Your task to perform on an android device: open app "Microsoft Outlook" (install if not already installed) Image 0: 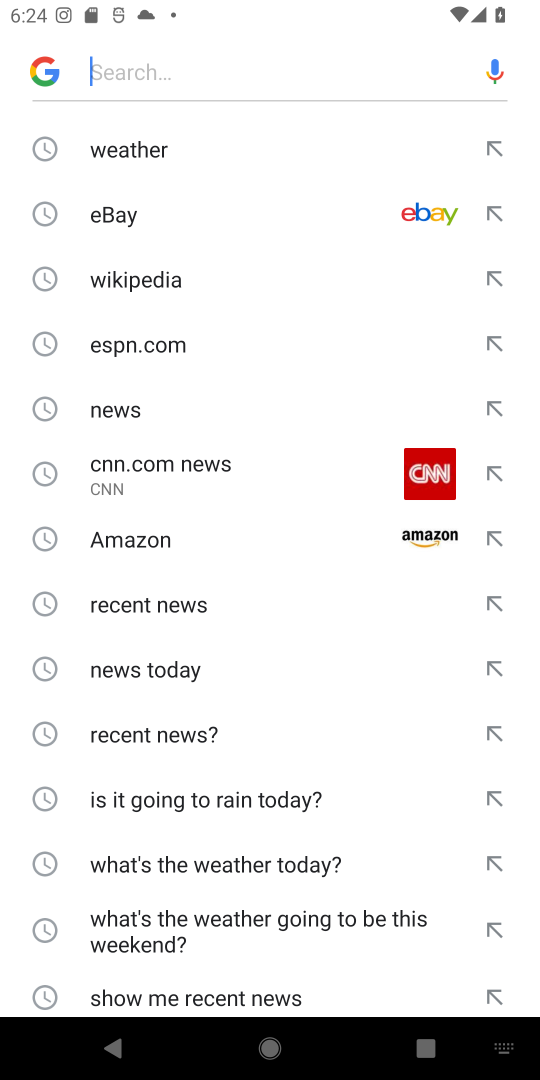
Step 0: press home button
Your task to perform on an android device: open app "Microsoft Outlook" (install if not already installed) Image 1: 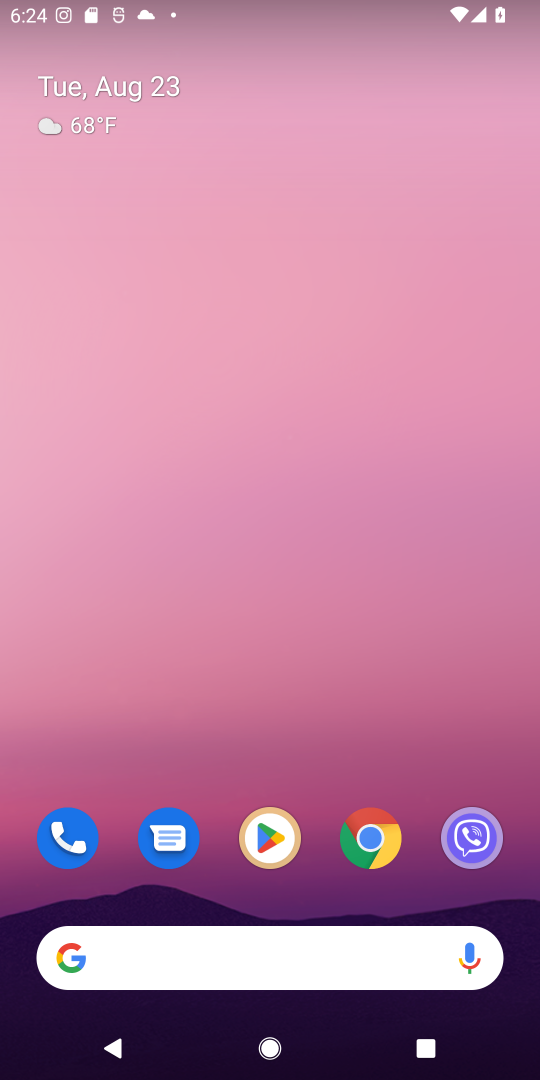
Step 1: click (269, 836)
Your task to perform on an android device: open app "Microsoft Outlook" (install if not already installed) Image 2: 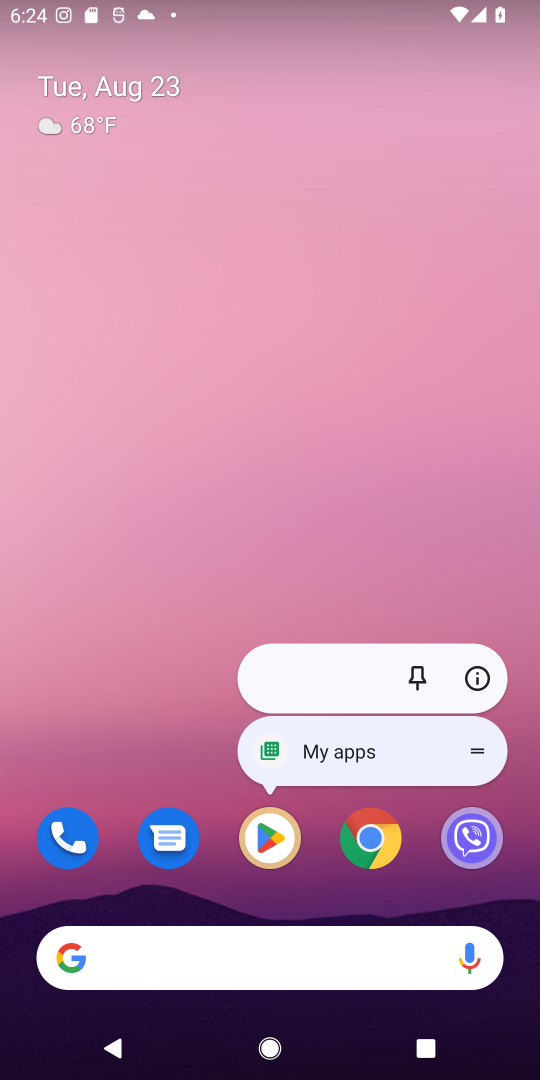
Step 2: click (266, 846)
Your task to perform on an android device: open app "Microsoft Outlook" (install if not already installed) Image 3: 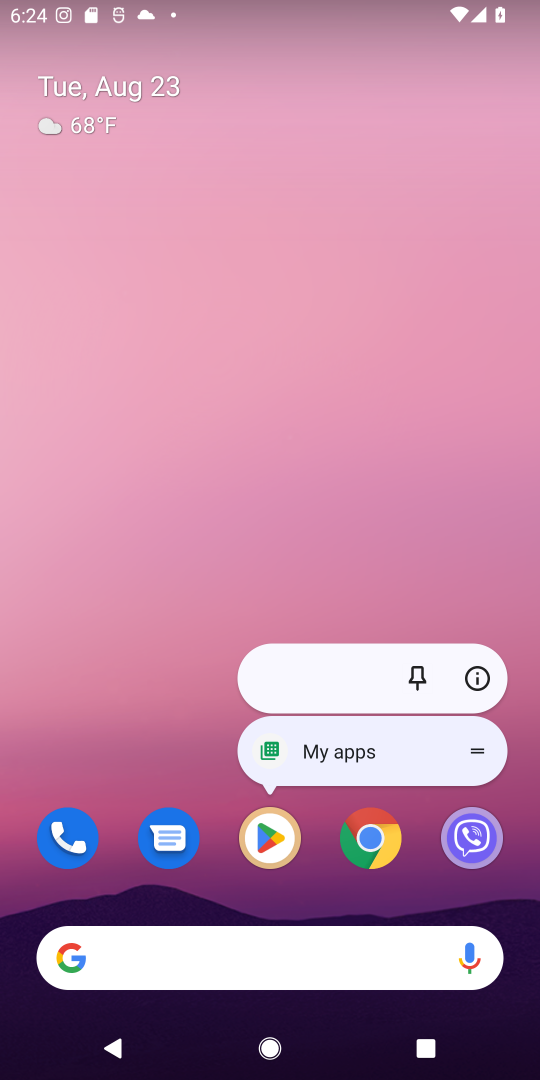
Step 3: click (268, 846)
Your task to perform on an android device: open app "Microsoft Outlook" (install if not already installed) Image 4: 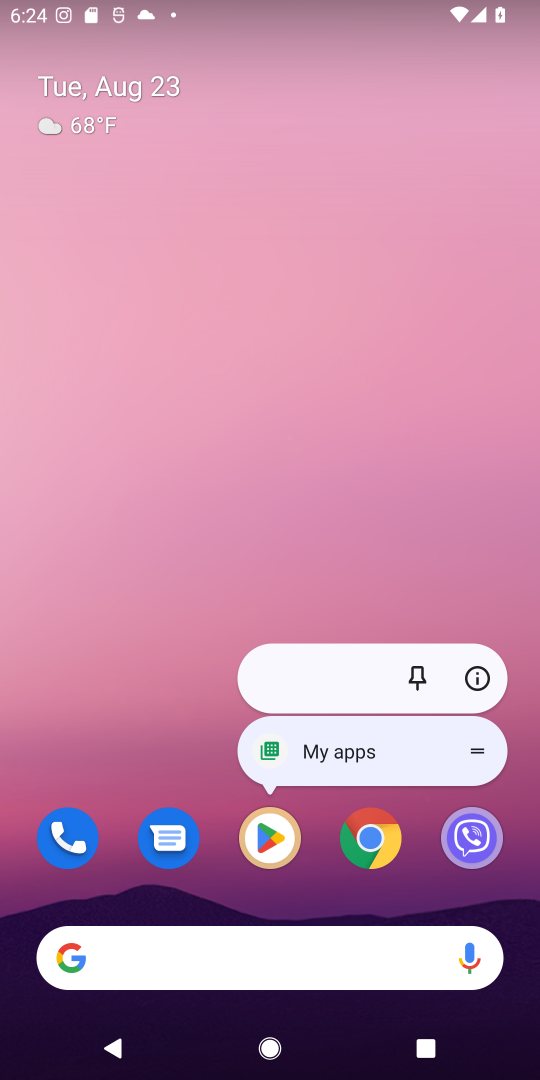
Step 4: click (269, 845)
Your task to perform on an android device: open app "Microsoft Outlook" (install if not already installed) Image 5: 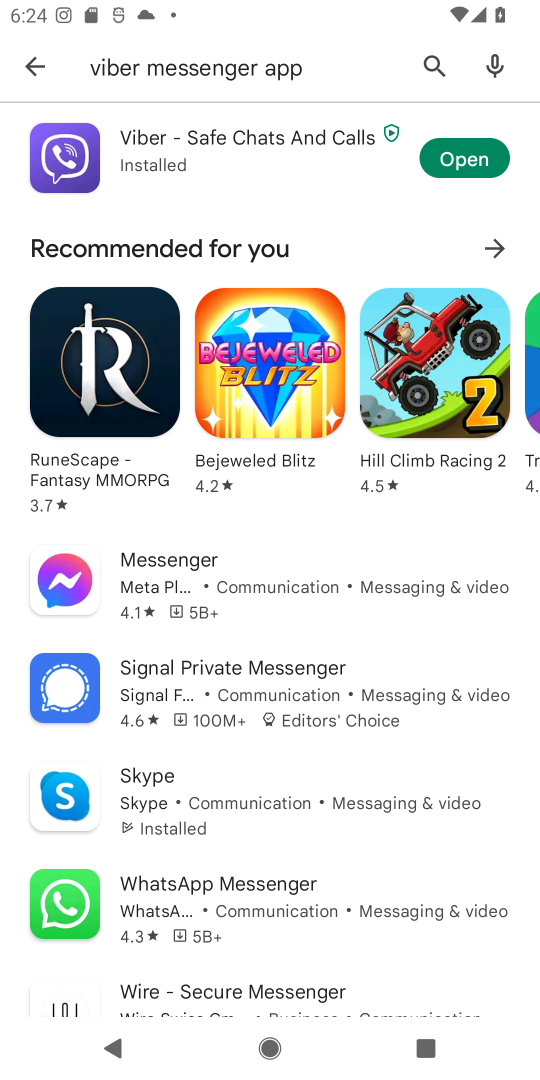
Step 5: click (437, 55)
Your task to perform on an android device: open app "Microsoft Outlook" (install if not already installed) Image 6: 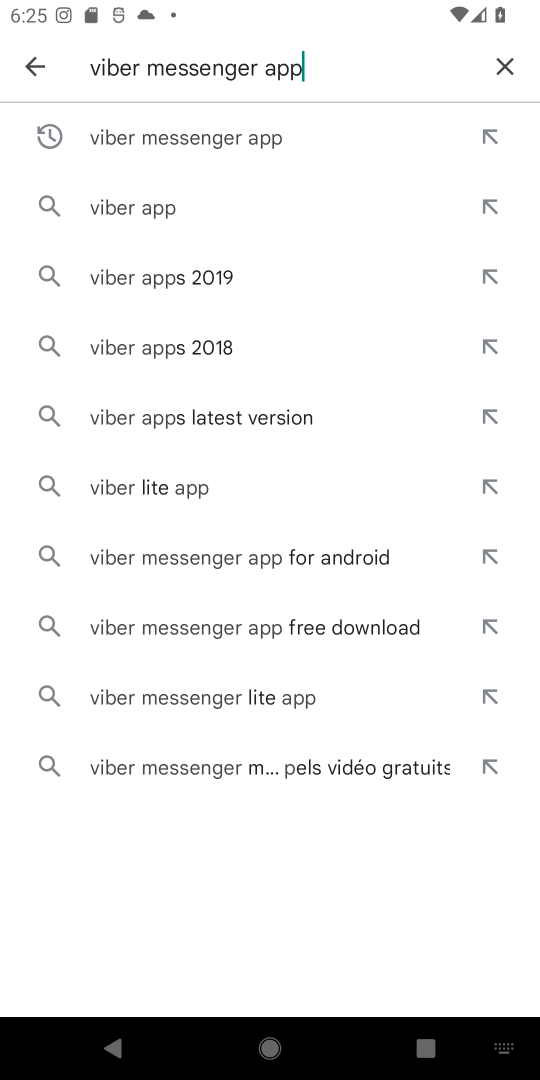
Step 6: click (505, 57)
Your task to perform on an android device: open app "Microsoft Outlook" (install if not already installed) Image 7: 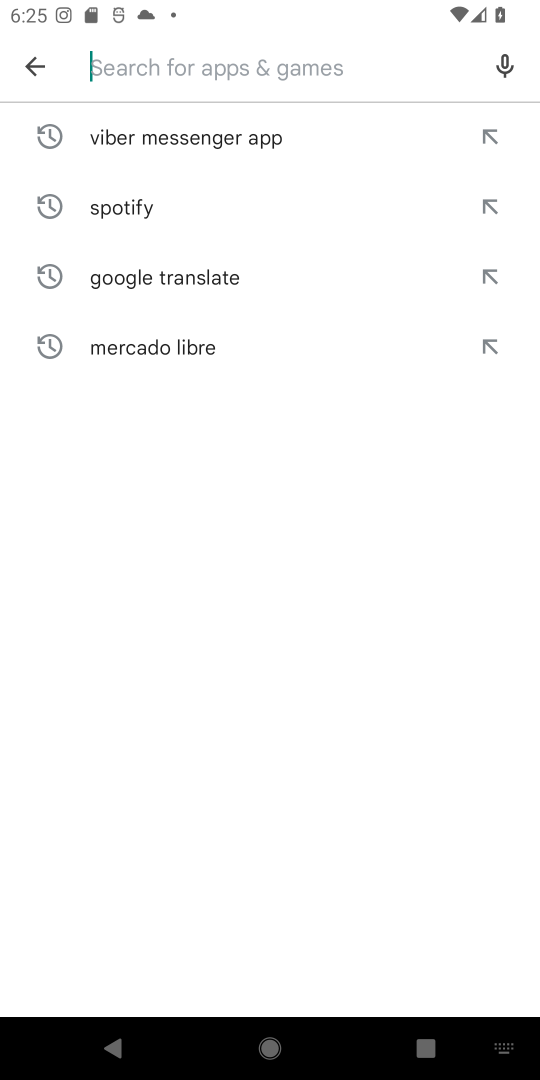
Step 7: type "Microsoft Outlook"
Your task to perform on an android device: open app "Microsoft Outlook" (install if not already installed) Image 8: 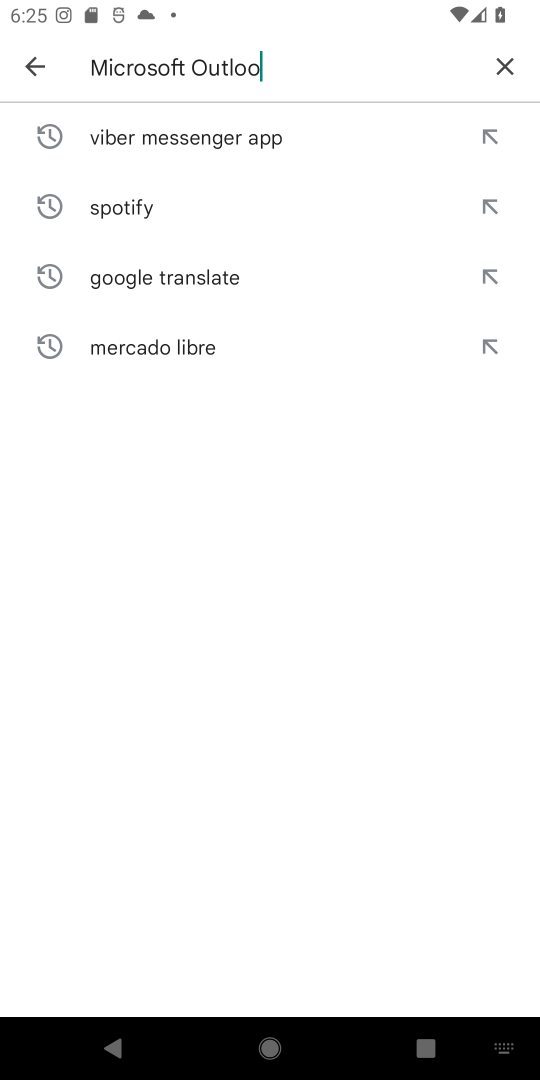
Step 8: type ""
Your task to perform on an android device: open app "Microsoft Outlook" (install if not already installed) Image 9: 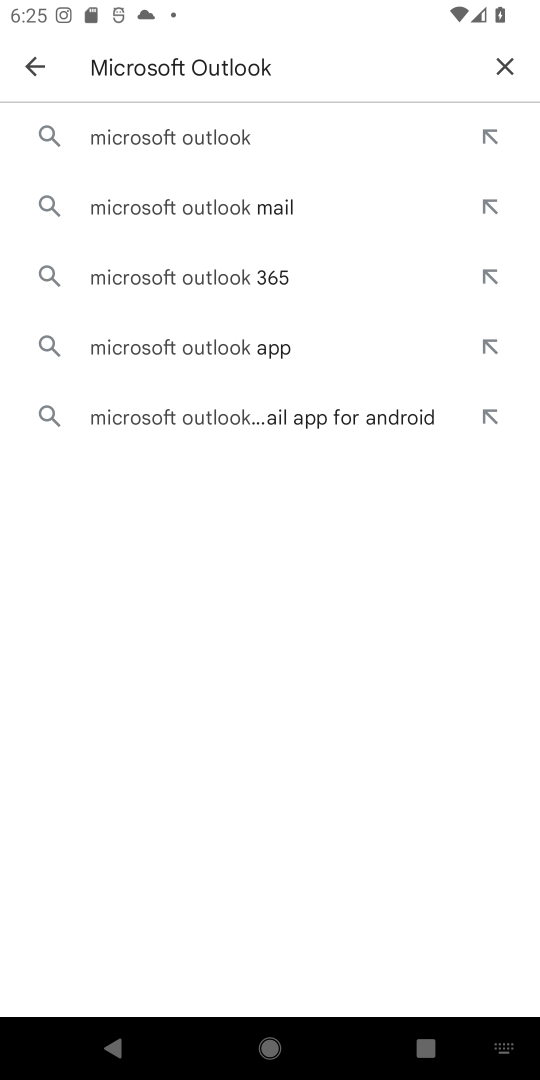
Step 9: click (203, 133)
Your task to perform on an android device: open app "Microsoft Outlook" (install if not already installed) Image 10: 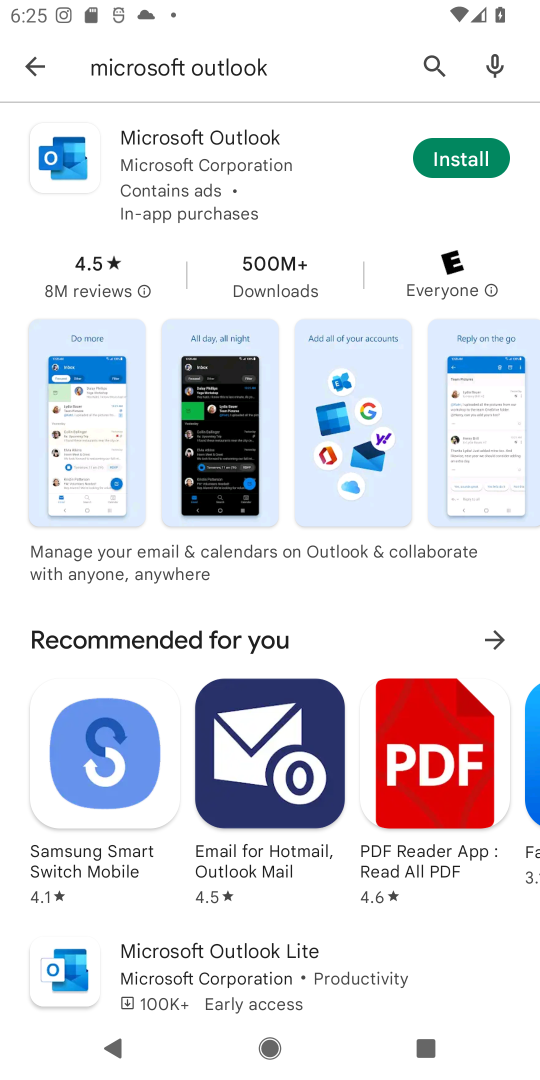
Step 10: click (471, 164)
Your task to perform on an android device: open app "Microsoft Outlook" (install if not already installed) Image 11: 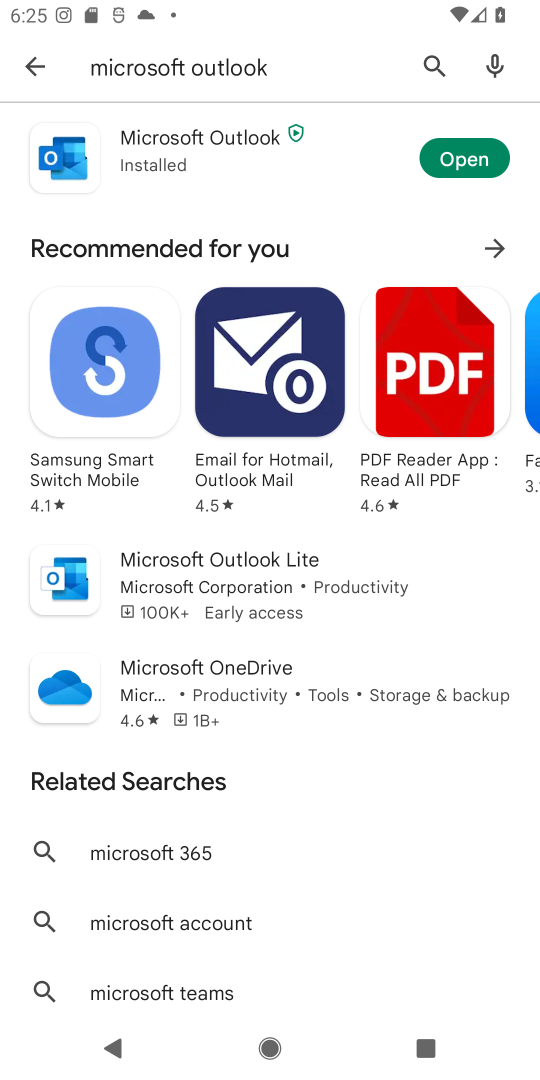
Step 11: click (459, 167)
Your task to perform on an android device: open app "Microsoft Outlook" (install if not already installed) Image 12: 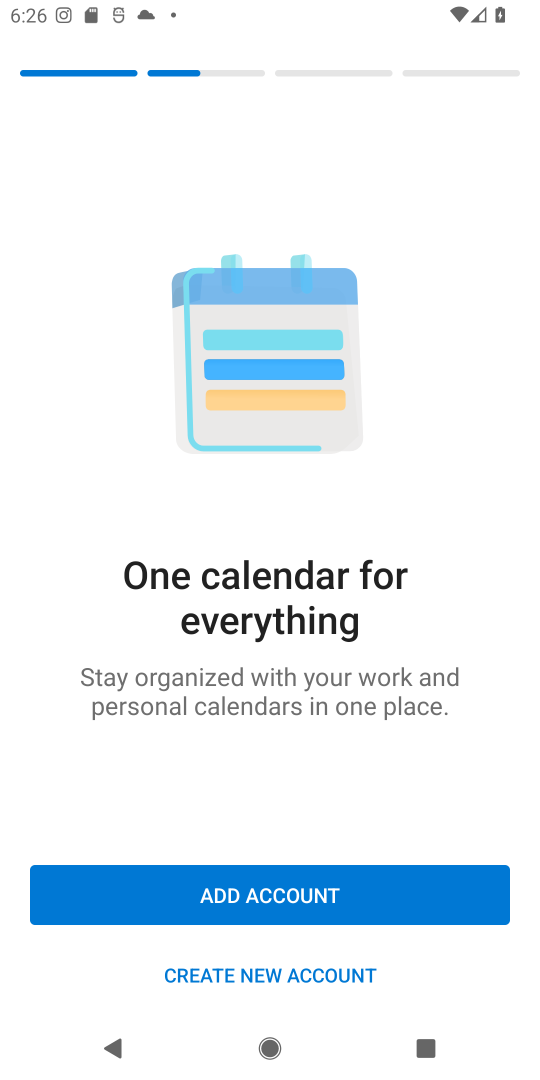
Step 12: task complete